Your task to perform on an android device: Go to eBay Image 0: 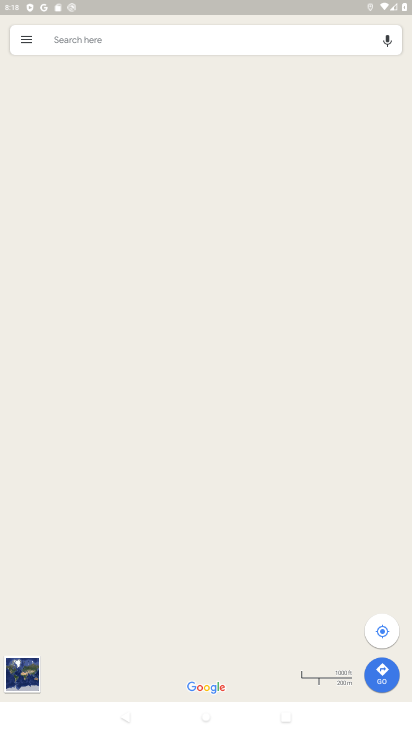
Step 0: press home button
Your task to perform on an android device: Go to eBay Image 1: 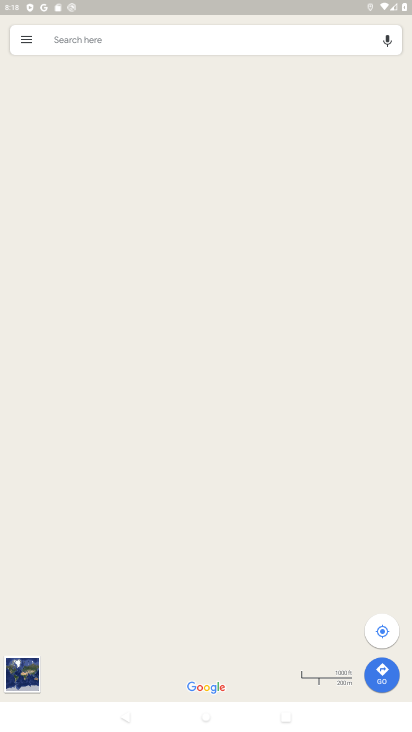
Step 1: click (140, 205)
Your task to perform on an android device: Go to eBay Image 2: 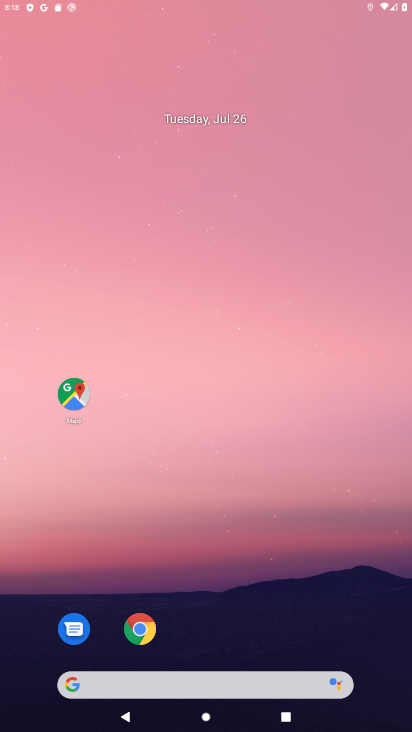
Step 2: drag from (181, 603) to (180, 207)
Your task to perform on an android device: Go to eBay Image 3: 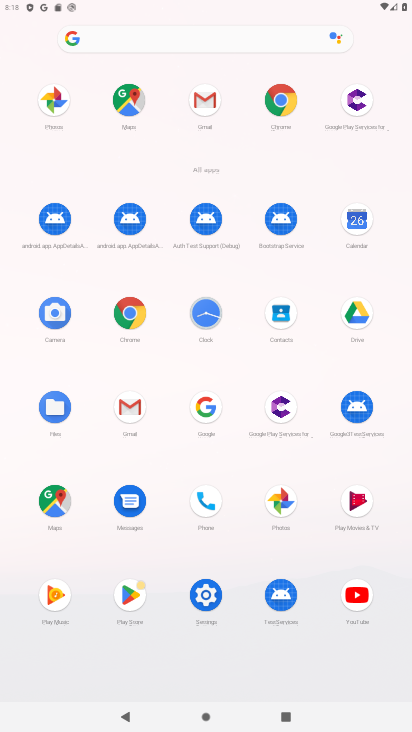
Step 3: click (284, 111)
Your task to perform on an android device: Go to eBay Image 4: 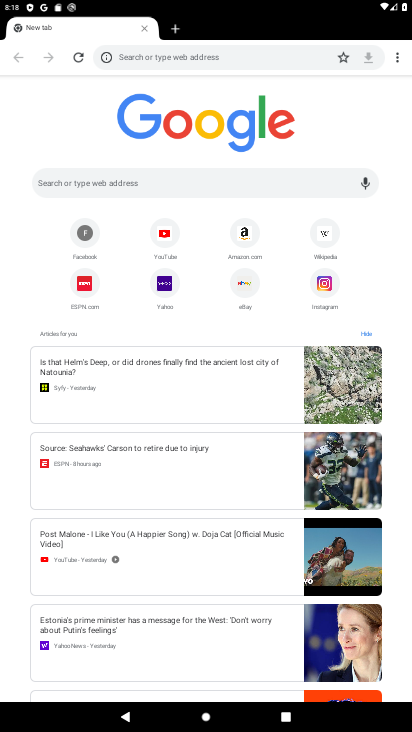
Step 4: click (256, 189)
Your task to perform on an android device: Go to eBay Image 5: 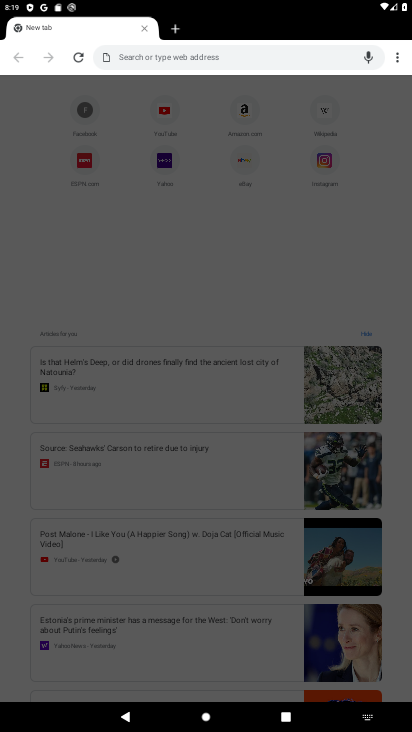
Step 5: type "eBay"
Your task to perform on an android device: Go to eBay Image 6: 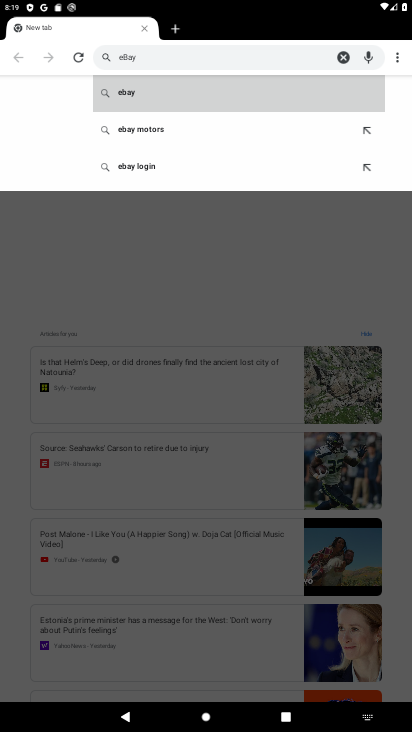
Step 6: click (146, 101)
Your task to perform on an android device: Go to eBay Image 7: 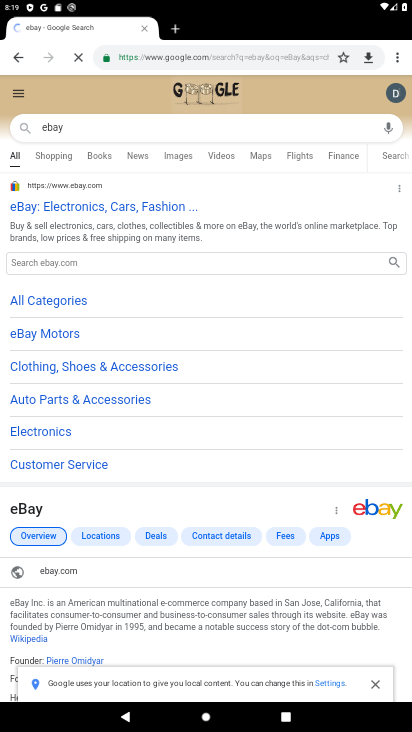
Step 7: click (164, 212)
Your task to perform on an android device: Go to eBay Image 8: 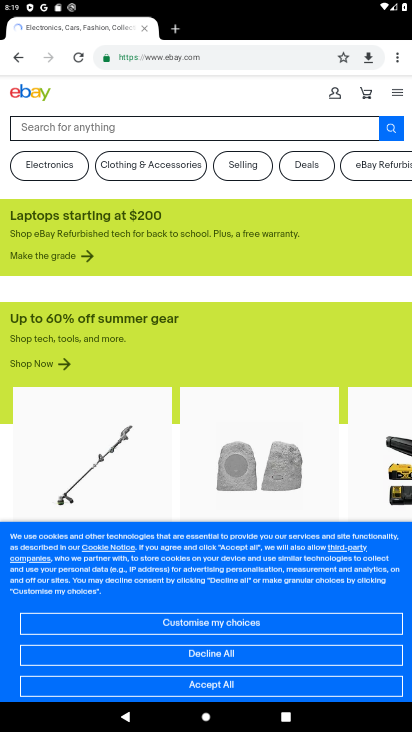
Step 8: task complete